Your task to perform on an android device: open chrome and create a bookmark for the current page Image 0: 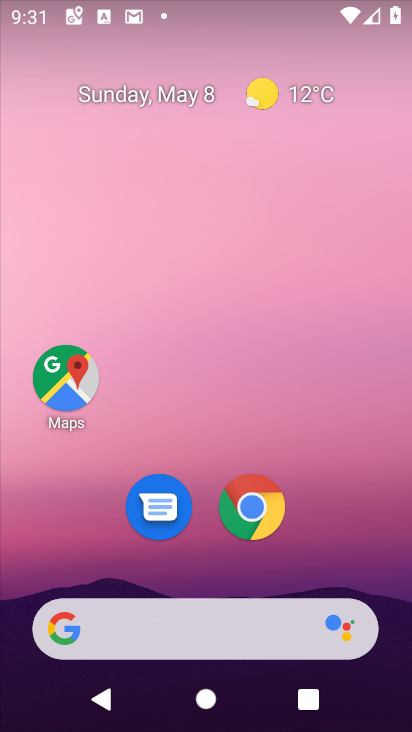
Step 0: click (65, 378)
Your task to perform on an android device: open chrome and create a bookmark for the current page Image 1: 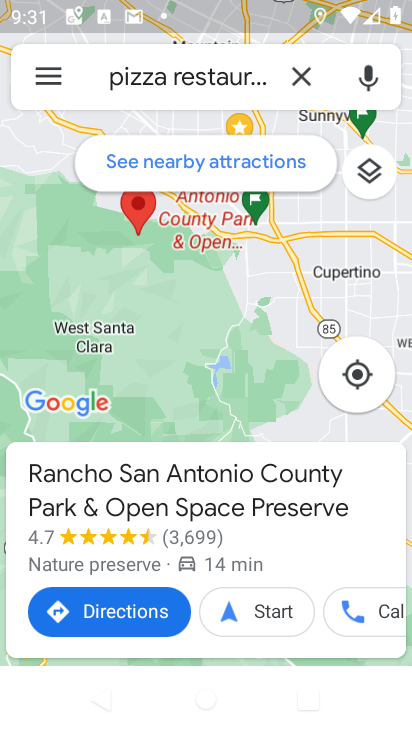
Step 1: press home button
Your task to perform on an android device: open chrome and create a bookmark for the current page Image 2: 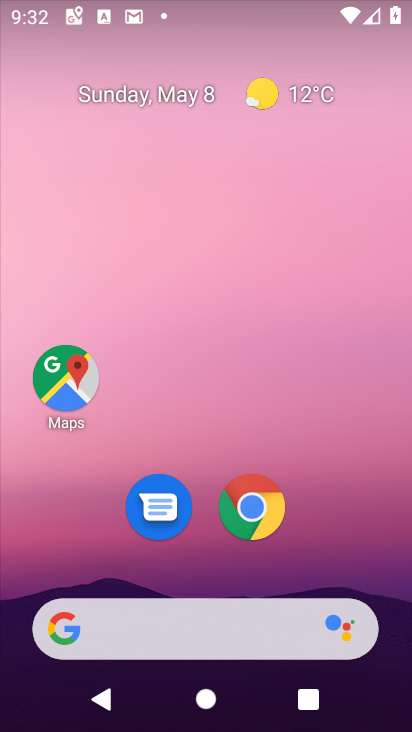
Step 2: click (255, 506)
Your task to perform on an android device: open chrome and create a bookmark for the current page Image 3: 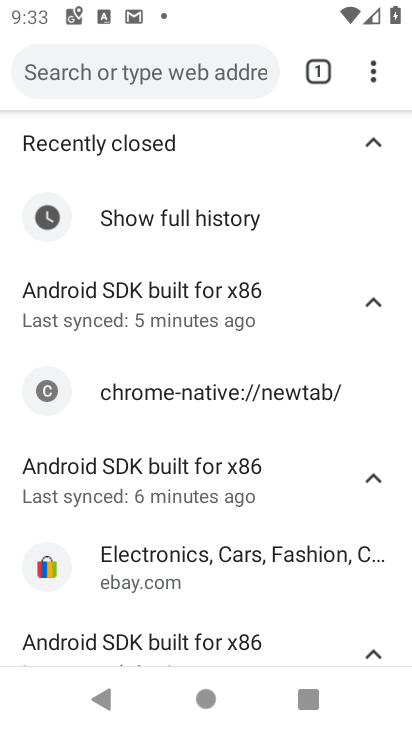
Step 3: click (376, 74)
Your task to perform on an android device: open chrome and create a bookmark for the current page Image 4: 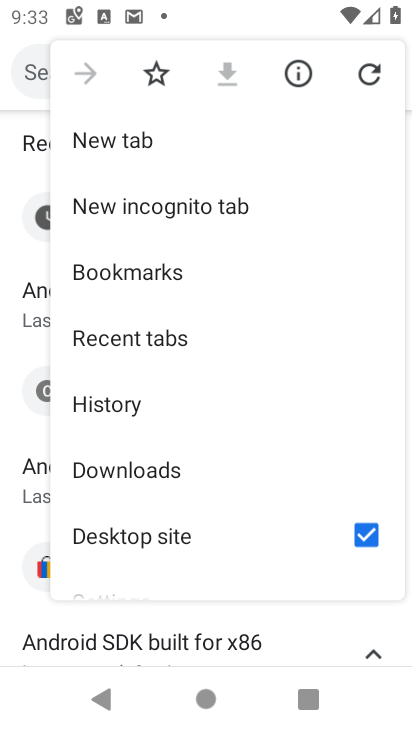
Step 4: click (155, 77)
Your task to perform on an android device: open chrome and create a bookmark for the current page Image 5: 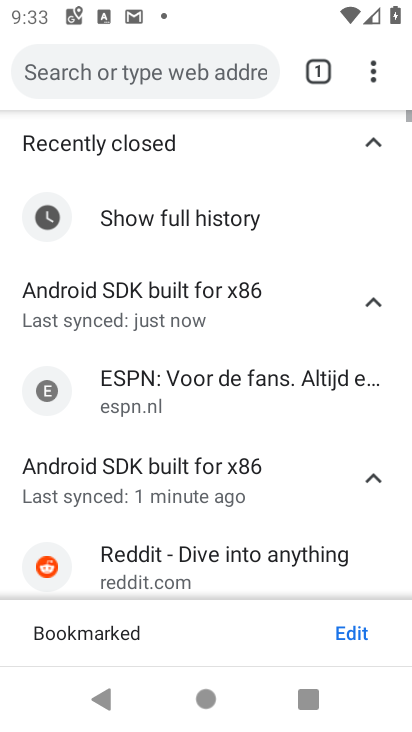
Step 5: task complete